Your task to perform on an android device: delete the emails in spam in the gmail app Image 0: 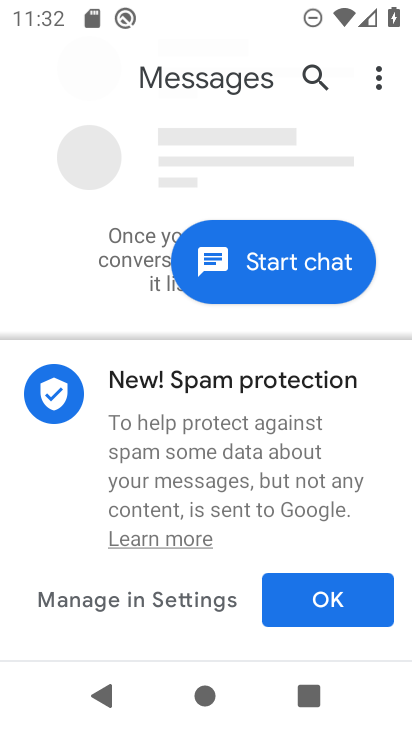
Step 0: press home button
Your task to perform on an android device: delete the emails in spam in the gmail app Image 1: 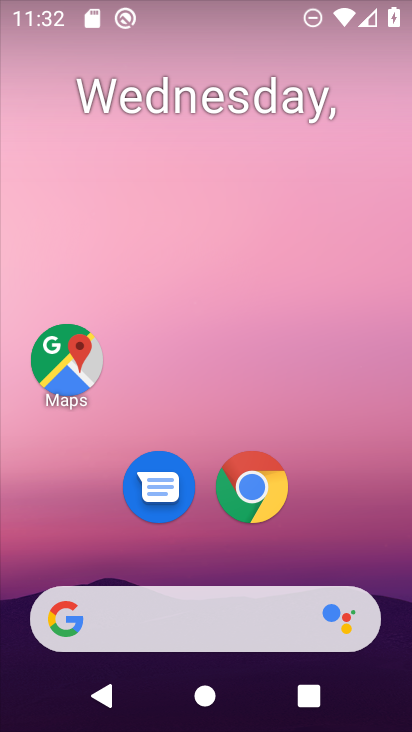
Step 1: drag from (332, 548) to (239, 75)
Your task to perform on an android device: delete the emails in spam in the gmail app Image 2: 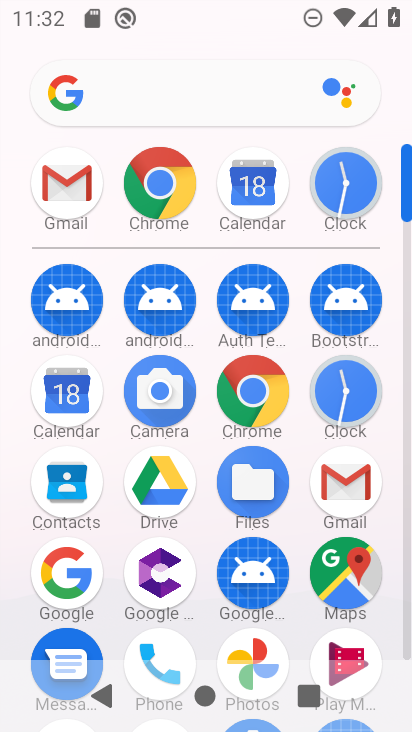
Step 2: click (63, 181)
Your task to perform on an android device: delete the emails in spam in the gmail app Image 3: 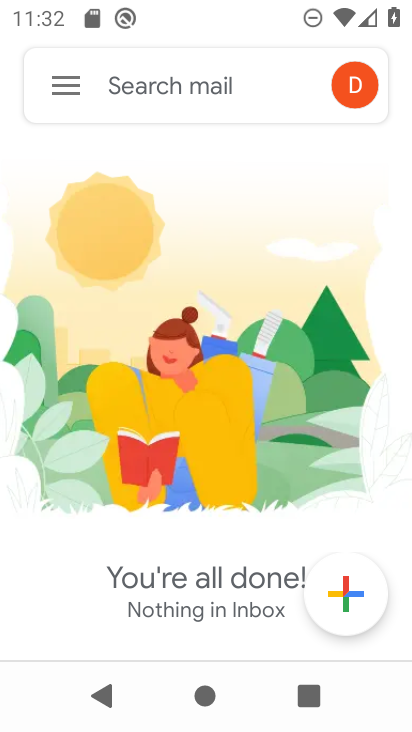
Step 3: click (73, 83)
Your task to perform on an android device: delete the emails in spam in the gmail app Image 4: 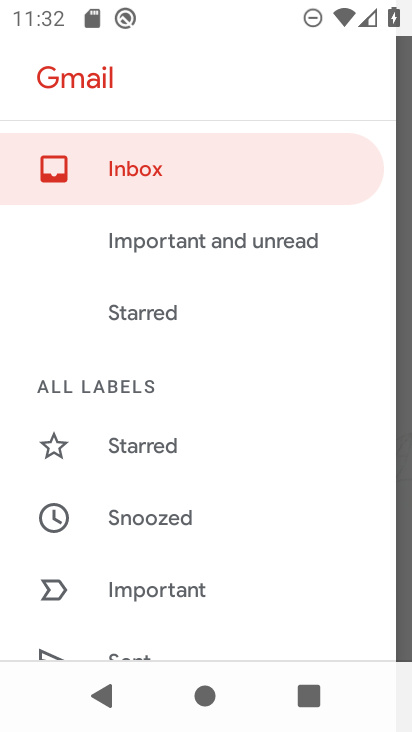
Step 4: drag from (204, 431) to (197, 146)
Your task to perform on an android device: delete the emails in spam in the gmail app Image 5: 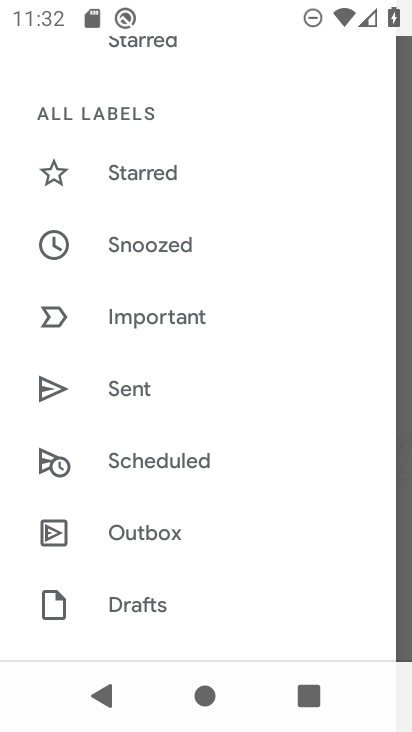
Step 5: drag from (202, 532) to (206, 243)
Your task to perform on an android device: delete the emails in spam in the gmail app Image 6: 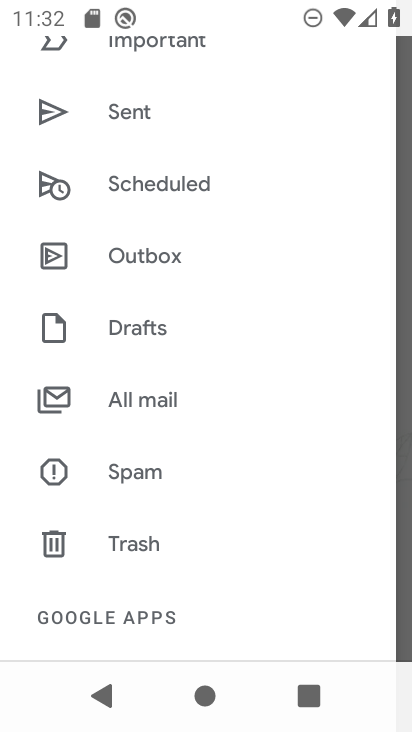
Step 6: click (152, 468)
Your task to perform on an android device: delete the emails in spam in the gmail app Image 7: 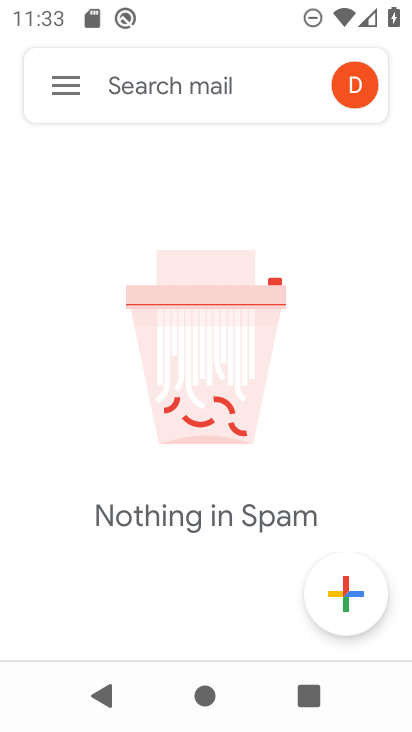
Step 7: task complete